Your task to perform on an android device: Go to Google maps Image 0: 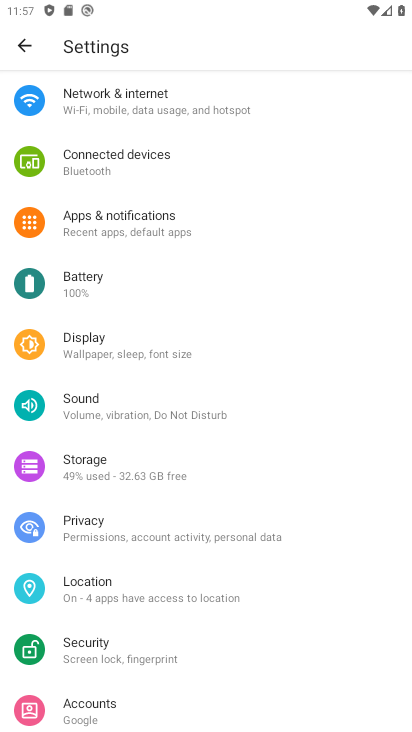
Step 0: press home button
Your task to perform on an android device: Go to Google maps Image 1: 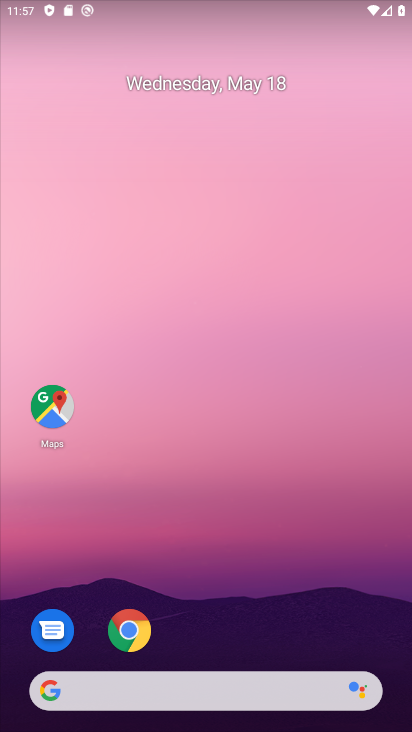
Step 1: click (58, 419)
Your task to perform on an android device: Go to Google maps Image 2: 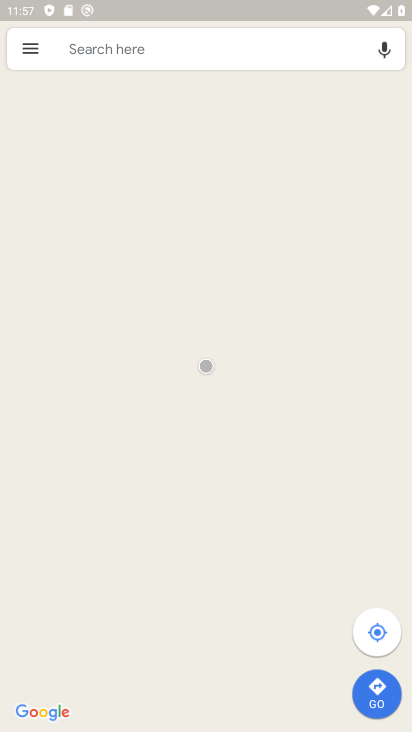
Step 2: click (189, 44)
Your task to perform on an android device: Go to Google maps Image 3: 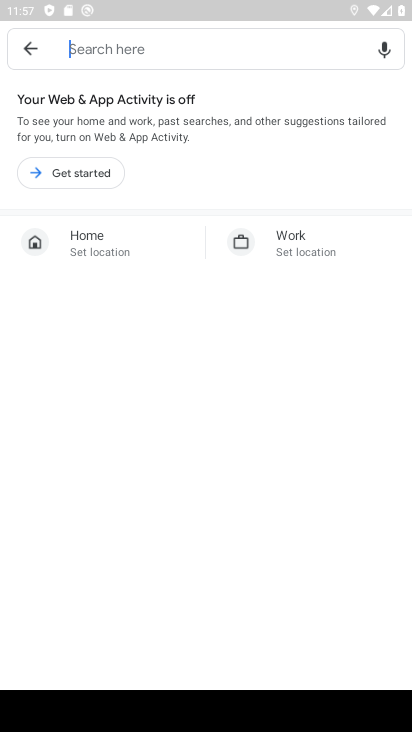
Step 3: click (29, 49)
Your task to perform on an android device: Go to Google maps Image 4: 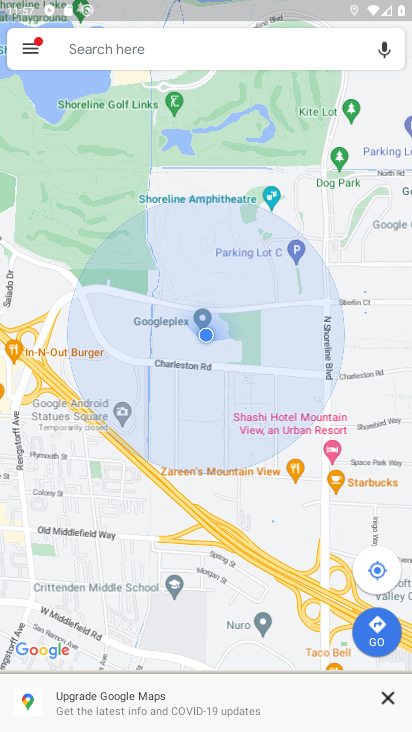
Step 4: task complete